Your task to perform on an android device: Open Wikipedia Image 0: 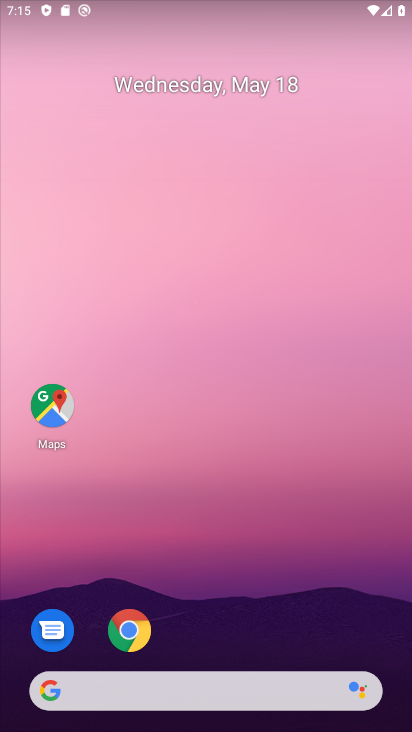
Step 0: click (126, 628)
Your task to perform on an android device: Open Wikipedia Image 1: 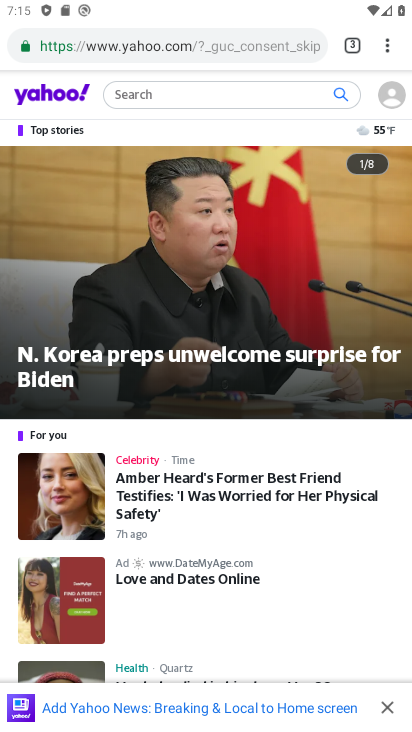
Step 1: click (387, 50)
Your task to perform on an android device: Open Wikipedia Image 2: 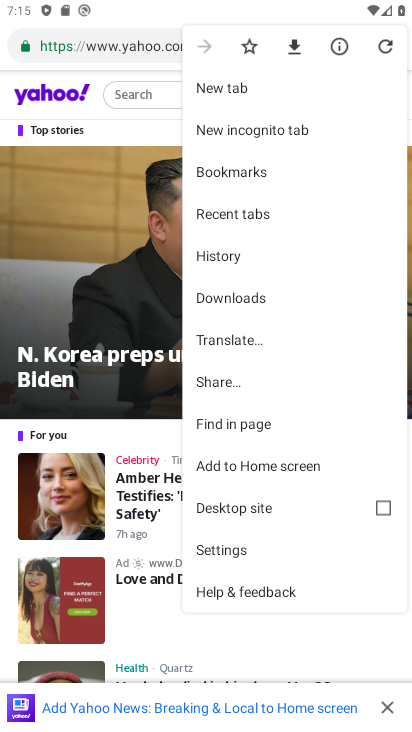
Step 2: click (218, 87)
Your task to perform on an android device: Open Wikipedia Image 3: 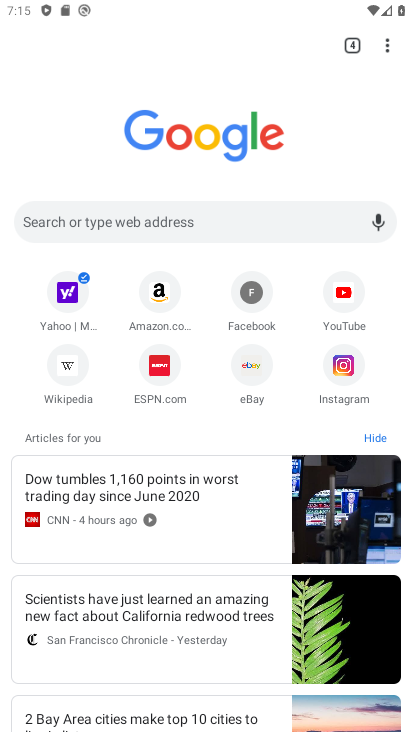
Step 3: click (61, 365)
Your task to perform on an android device: Open Wikipedia Image 4: 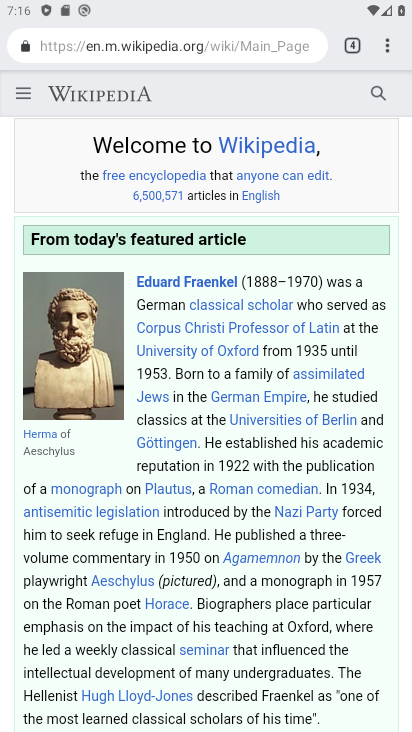
Step 4: task complete